Your task to perform on an android device: open sync settings in chrome Image 0: 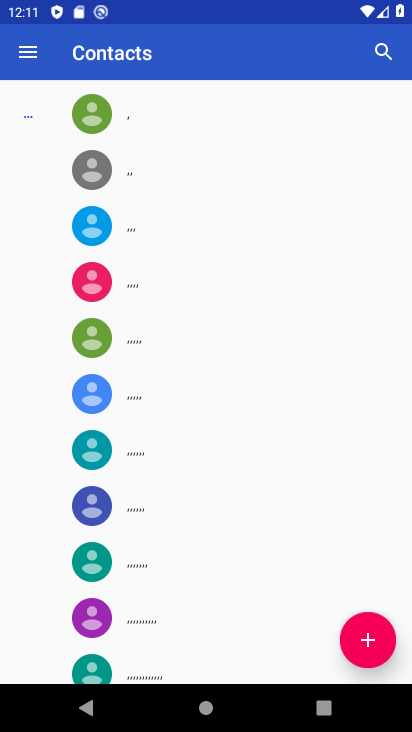
Step 0: press home button
Your task to perform on an android device: open sync settings in chrome Image 1: 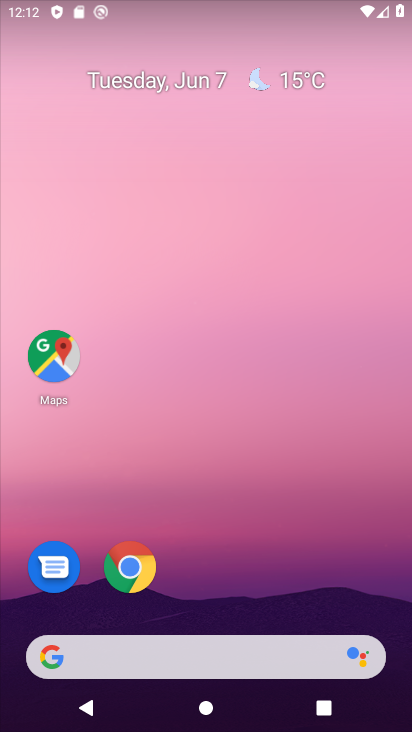
Step 1: drag from (274, 648) to (286, 125)
Your task to perform on an android device: open sync settings in chrome Image 2: 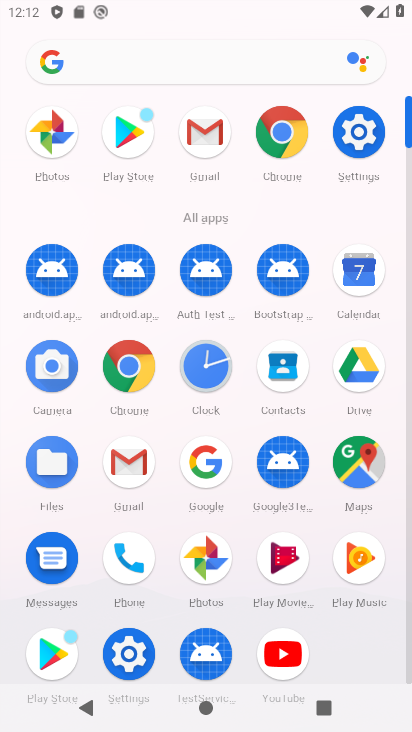
Step 2: click (124, 357)
Your task to perform on an android device: open sync settings in chrome Image 3: 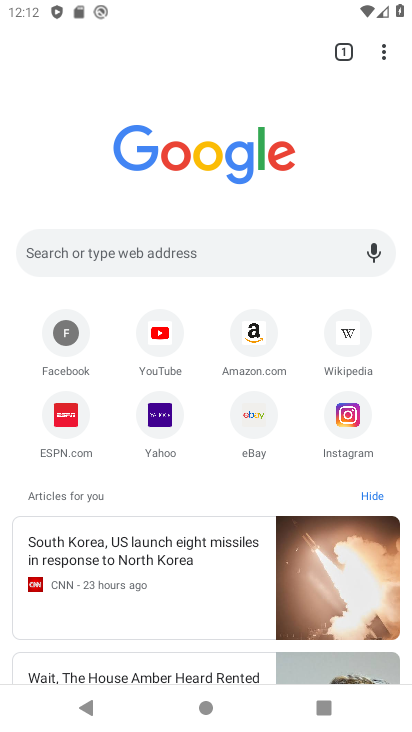
Step 3: drag from (390, 53) to (292, 453)
Your task to perform on an android device: open sync settings in chrome Image 4: 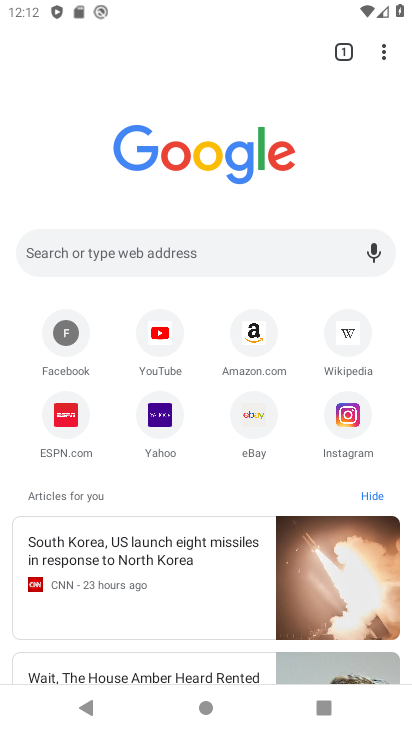
Step 4: click (264, 442)
Your task to perform on an android device: open sync settings in chrome Image 5: 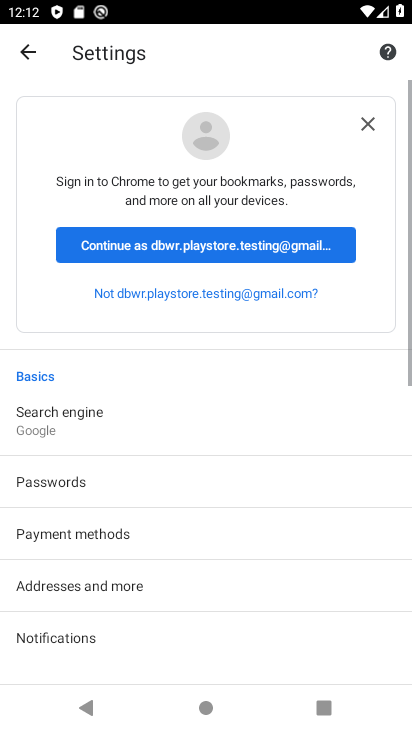
Step 5: drag from (219, 670) to (294, 106)
Your task to perform on an android device: open sync settings in chrome Image 6: 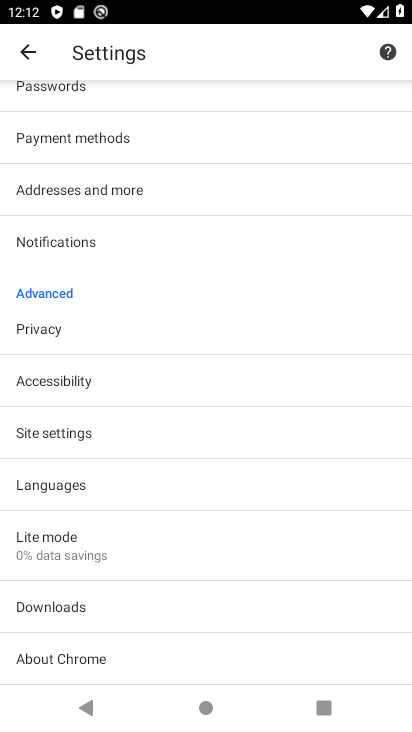
Step 6: drag from (163, 592) to (213, 401)
Your task to perform on an android device: open sync settings in chrome Image 7: 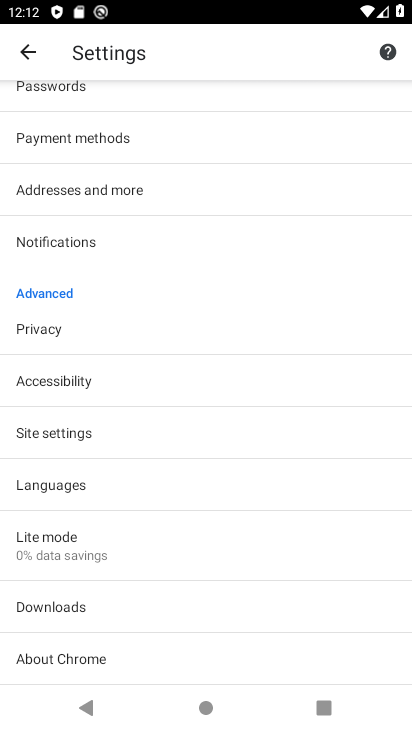
Step 7: click (107, 432)
Your task to perform on an android device: open sync settings in chrome Image 8: 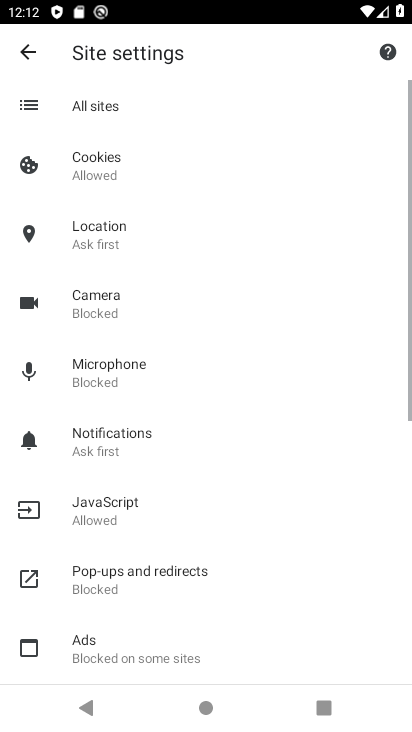
Step 8: drag from (182, 618) to (221, 398)
Your task to perform on an android device: open sync settings in chrome Image 9: 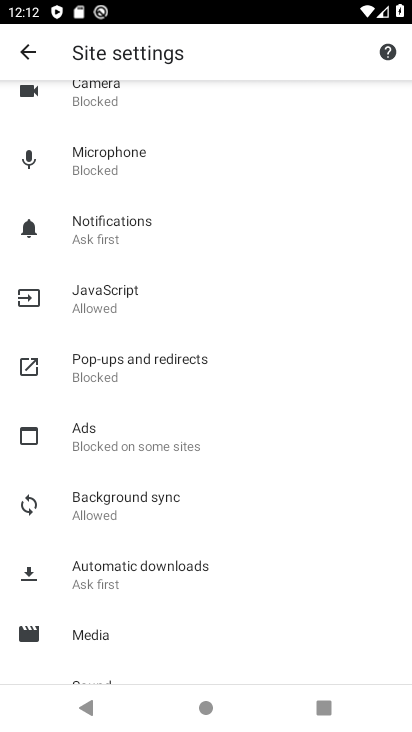
Step 9: click (196, 494)
Your task to perform on an android device: open sync settings in chrome Image 10: 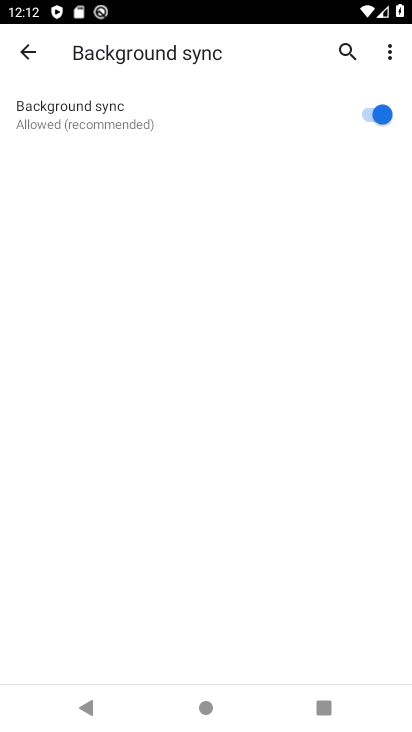
Step 10: click (126, 451)
Your task to perform on an android device: open sync settings in chrome Image 11: 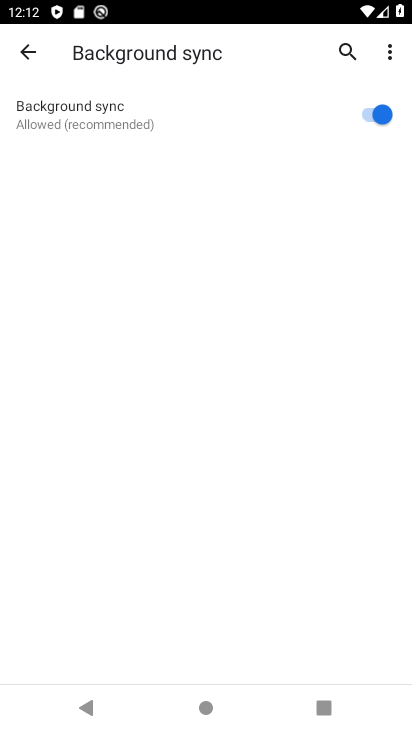
Step 11: click (374, 113)
Your task to perform on an android device: open sync settings in chrome Image 12: 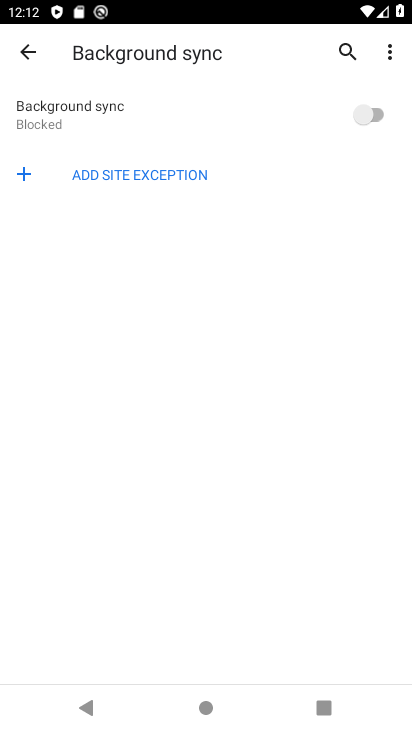
Step 12: task complete